Your task to perform on an android device: turn on airplane mode Image 0: 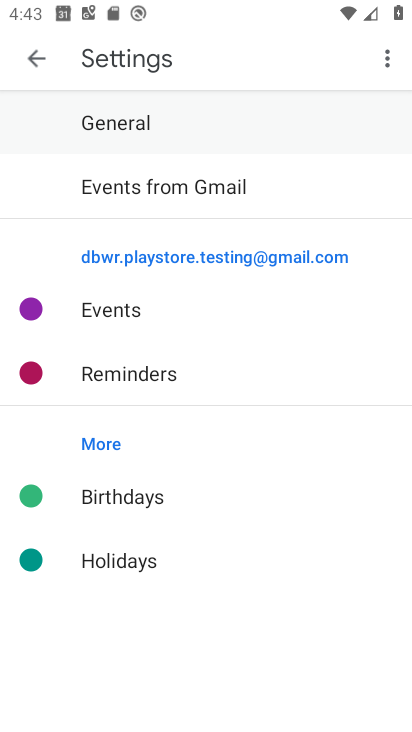
Step 0: press home button
Your task to perform on an android device: turn on airplane mode Image 1: 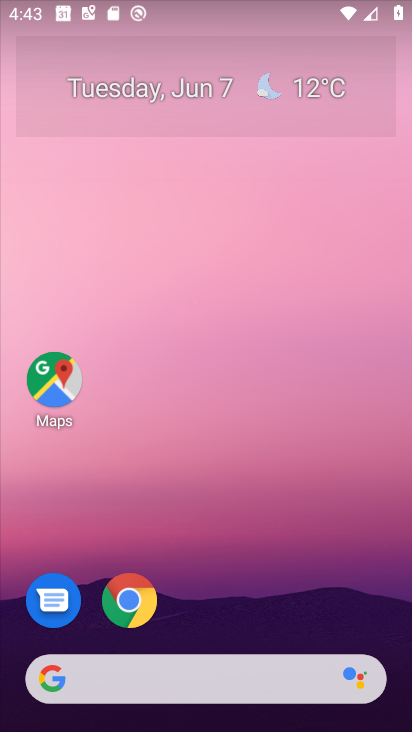
Step 1: drag from (276, 591) to (253, 155)
Your task to perform on an android device: turn on airplane mode Image 2: 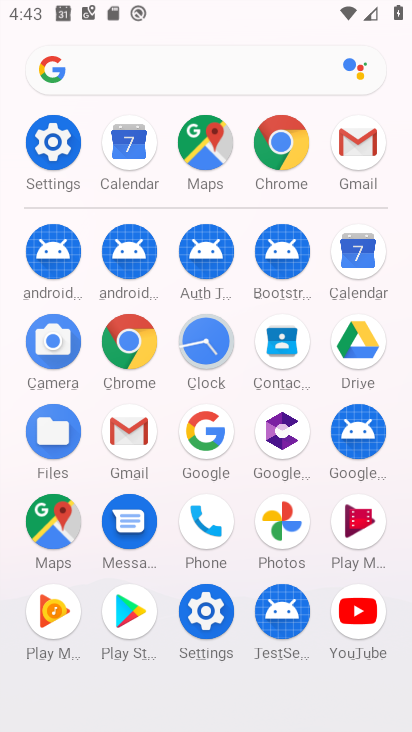
Step 2: click (54, 156)
Your task to perform on an android device: turn on airplane mode Image 3: 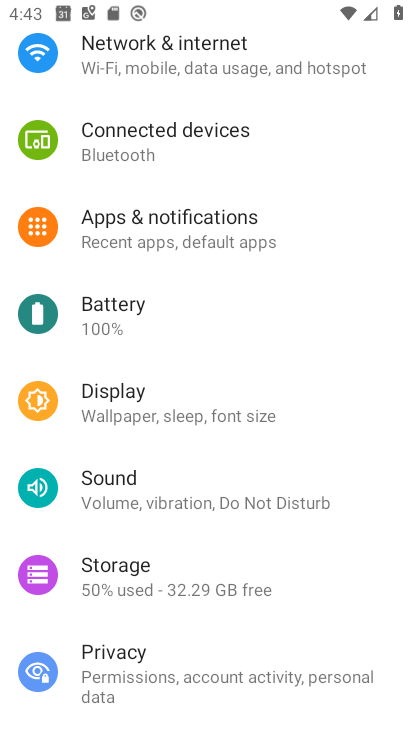
Step 3: drag from (179, 191) to (206, 571)
Your task to perform on an android device: turn on airplane mode Image 4: 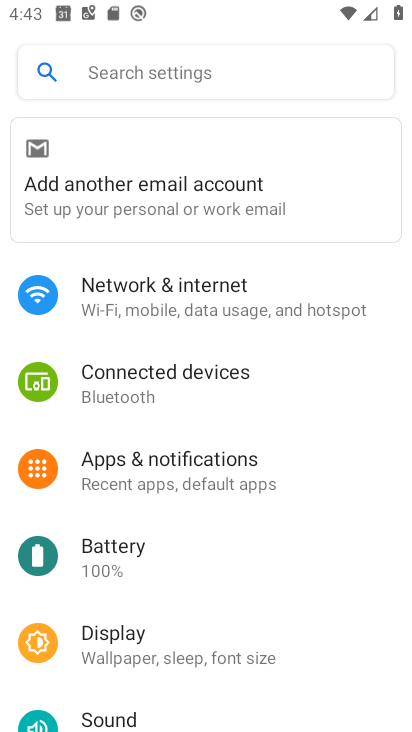
Step 4: click (173, 288)
Your task to perform on an android device: turn on airplane mode Image 5: 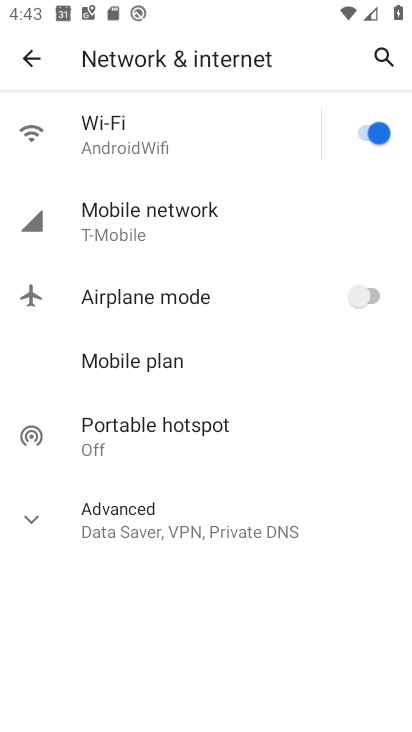
Step 5: click (351, 299)
Your task to perform on an android device: turn on airplane mode Image 6: 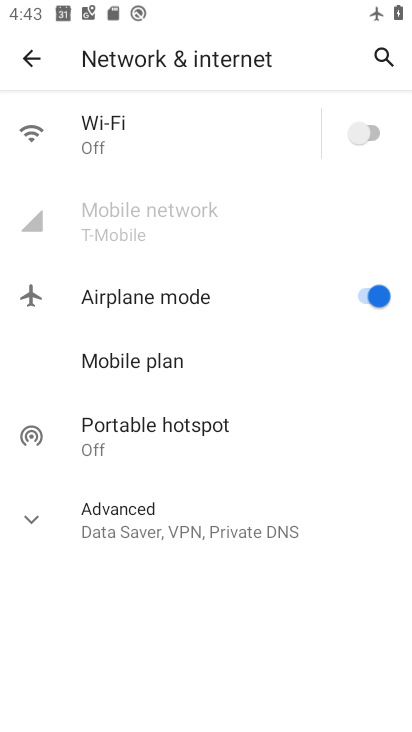
Step 6: task complete